Your task to perform on an android device: toggle notification dots Image 0: 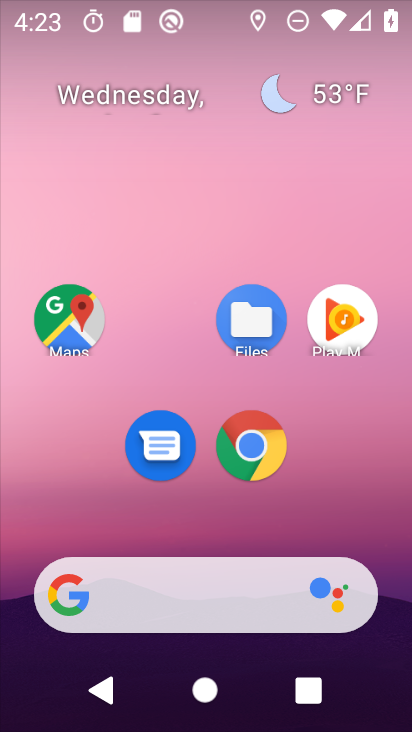
Step 0: drag from (377, 460) to (313, 144)
Your task to perform on an android device: toggle notification dots Image 1: 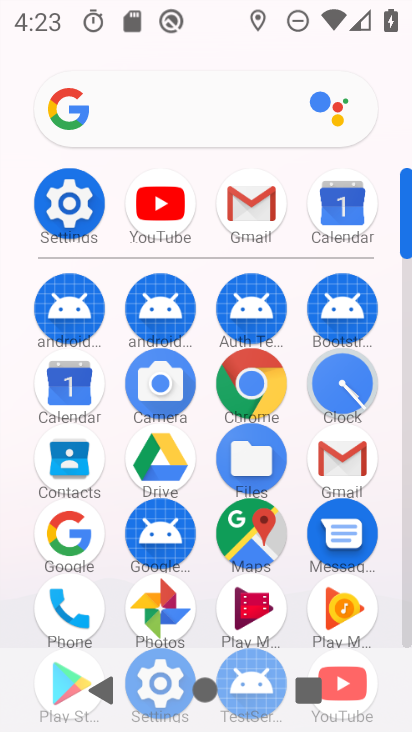
Step 1: click (75, 214)
Your task to perform on an android device: toggle notification dots Image 2: 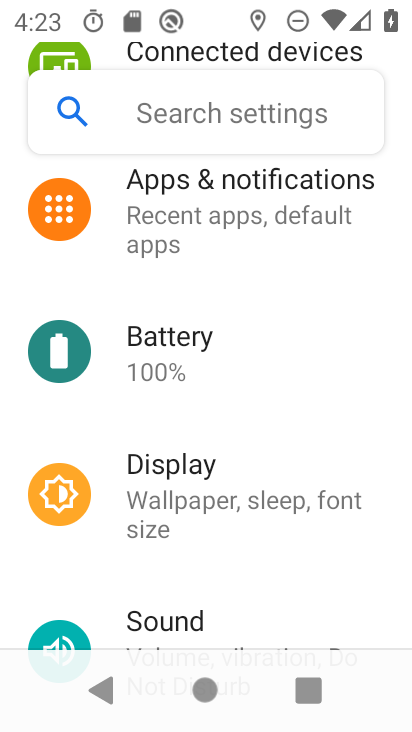
Step 2: click (253, 237)
Your task to perform on an android device: toggle notification dots Image 3: 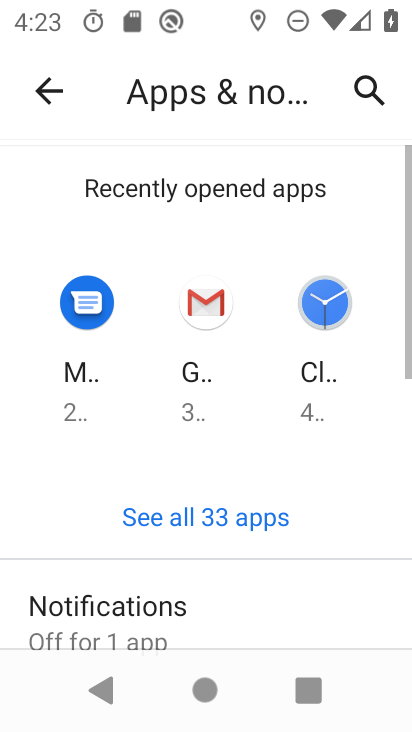
Step 3: drag from (204, 475) to (242, 96)
Your task to perform on an android device: toggle notification dots Image 4: 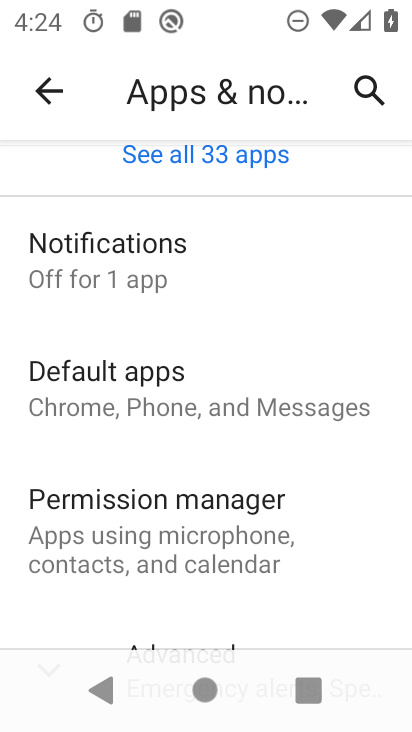
Step 4: drag from (231, 544) to (235, 135)
Your task to perform on an android device: toggle notification dots Image 5: 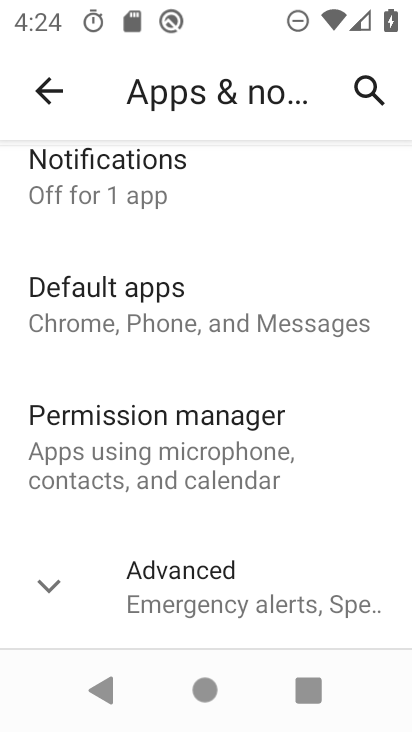
Step 5: click (212, 584)
Your task to perform on an android device: toggle notification dots Image 6: 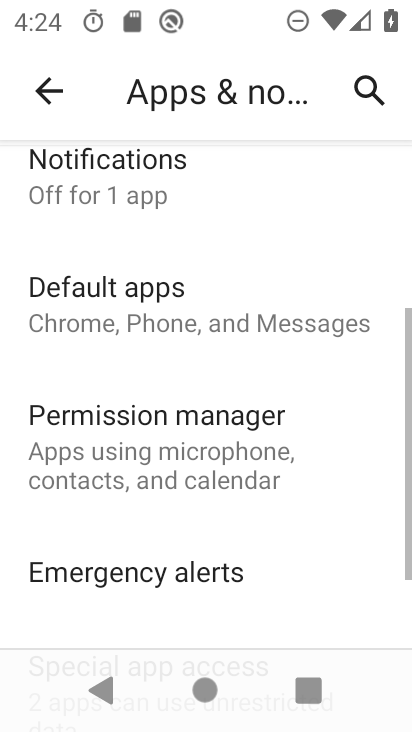
Step 6: drag from (212, 584) to (218, 215)
Your task to perform on an android device: toggle notification dots Image 7: 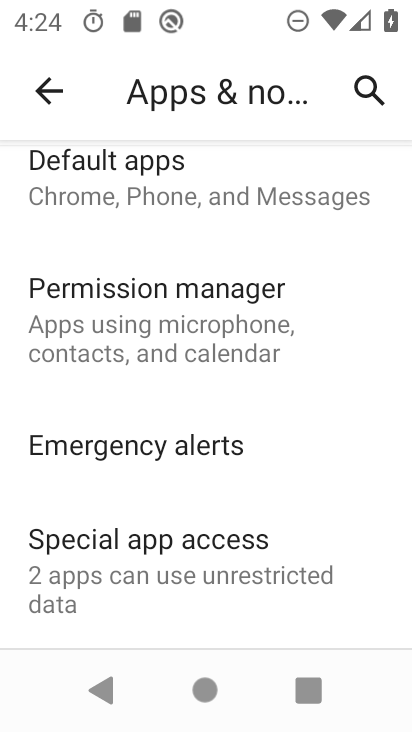
Step 7: press back button
Your task to perform on an android device: toggle notification dots Image 8: 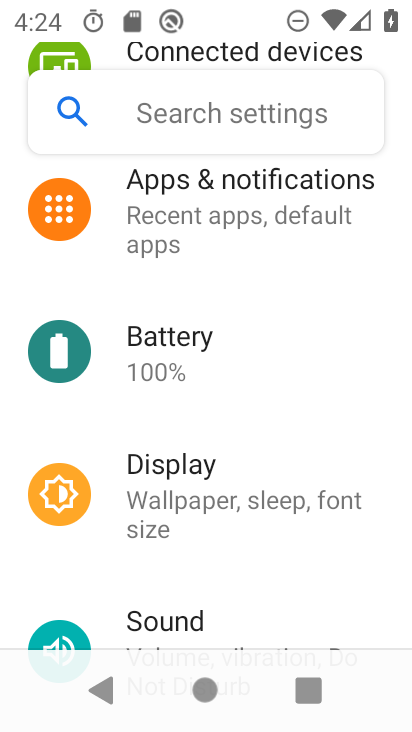
Step 8: click (256, 209)
Your task to perform on an android device: toggle notification dots Image 9: 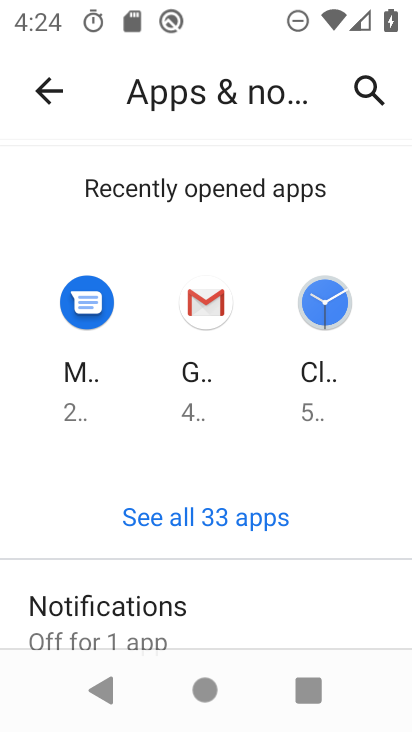
Step 9: click (218, 604)
Your task to perform on an android device: toggle notification dots Image 10: 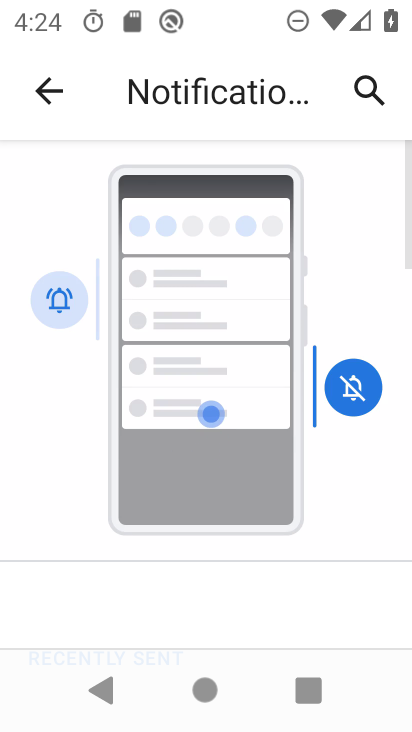
Step 10: drag from (232, 533) to (287, 164)
Your task to perform on an android device: toggle notification dots Image 11: 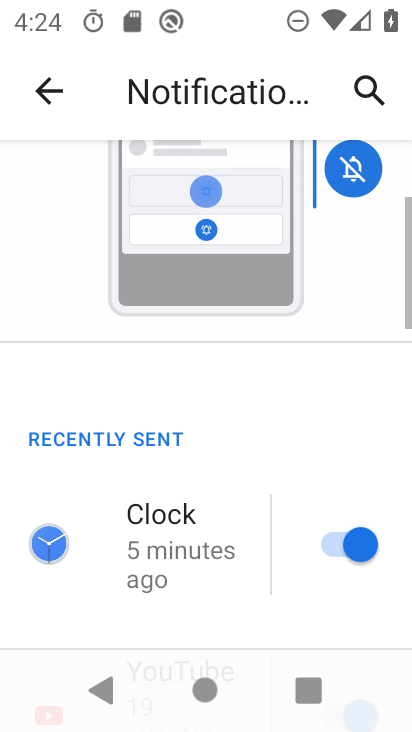
Step 11: drag from (229, 505) to (245, 164)
Your task to perform on an android device: toggle notification dots Image 12: 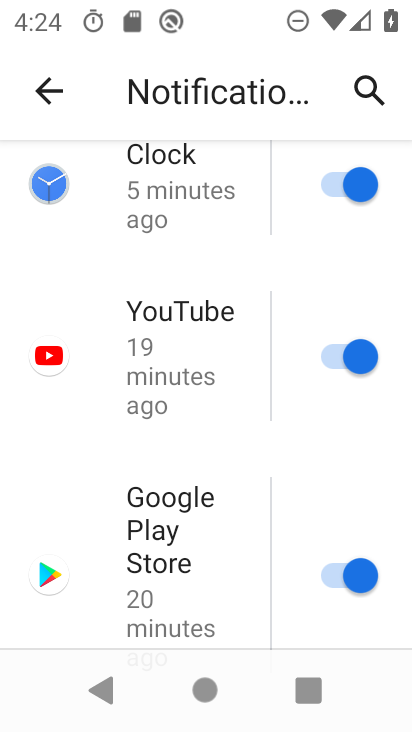
Step 12: drag from (220, 500) to (229, 181)
Your task to perform on an android device: toggle notification dots Image 13: 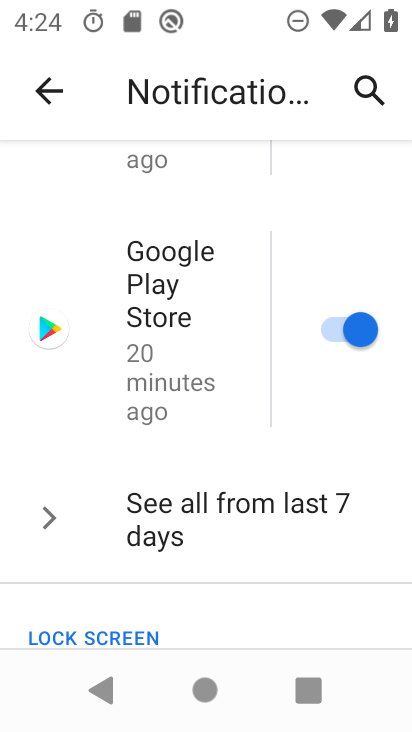
Step 13: drag from (215, 535) to (220, 173)
Your task to perform on an android device: toggle notification dots Image 14: 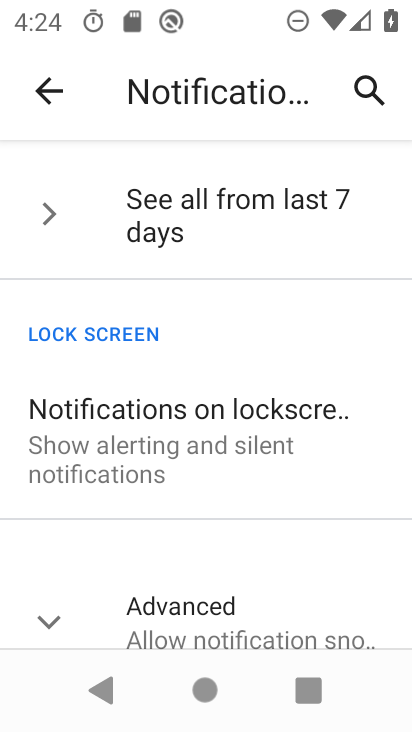
Step 14: click (252, 430)
Your task to perform on an android device: toggle notification dots Image 15: 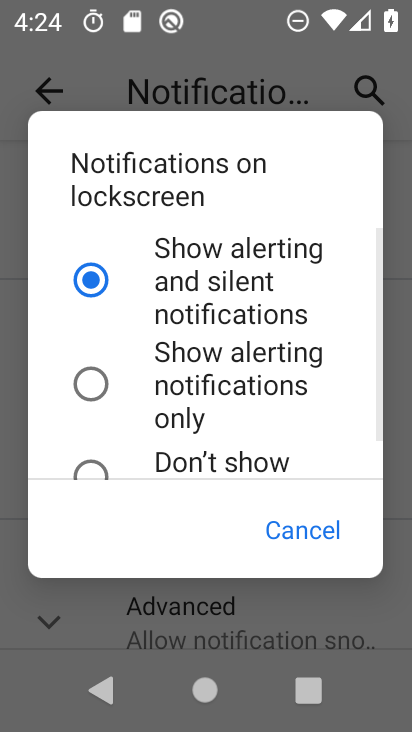
Step 15: click (296, 526)
Your task to perform on an android device: toggle notification dots Image 16: 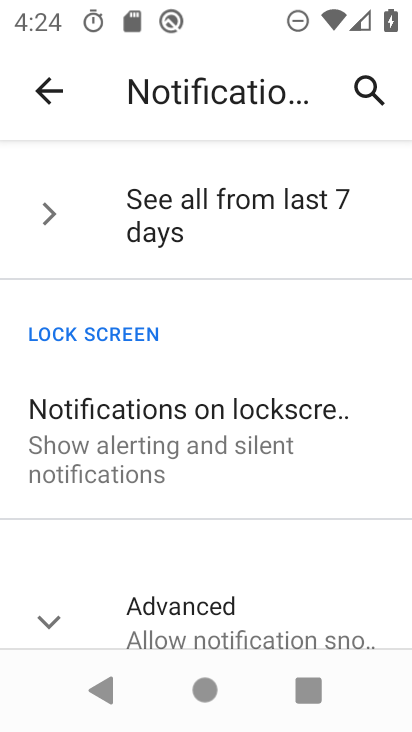
Step 16: click (294, 601)
Your task to perform on an android device: toggle notification dots Image 17: 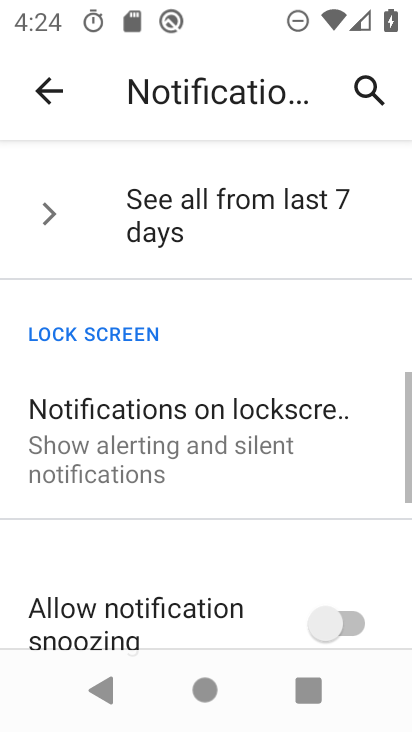
Step 17: drag from (294, 588) to (321, 196)
Your task to perform on an android device: toggle notification dots Image 18: 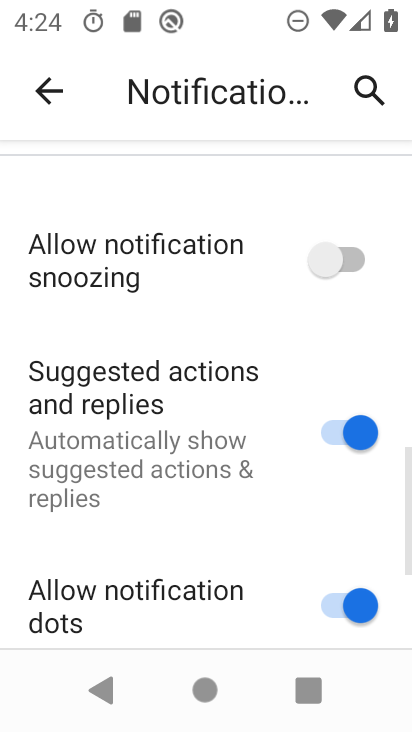
Step 18: drag from (250, 572) to (276, 225)
Your task to perform on an android device: toggle notification dots Image 19: 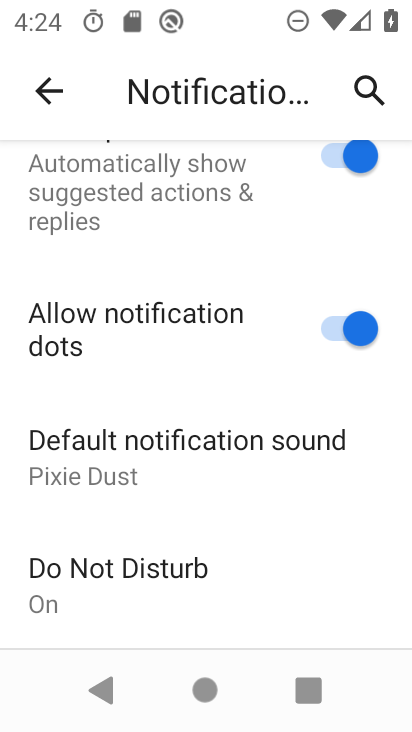
Step 19: click (345, 314)
Your task to perform on an android device: toggle notification dots Image 20: 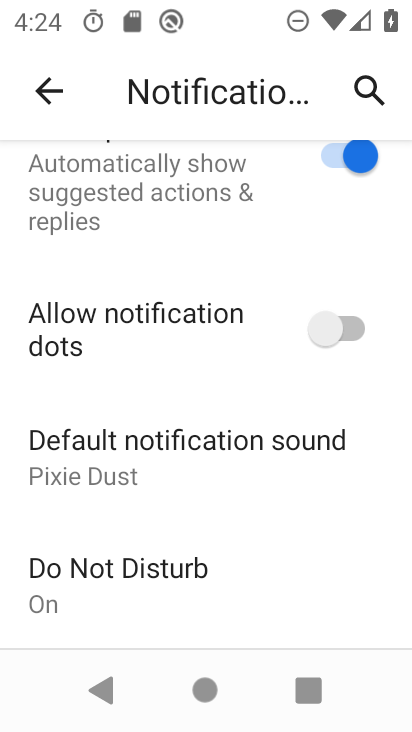
Step 20: task complete